Your task to perform on an android device: Open calendar and show me the third week of next month Image 0: 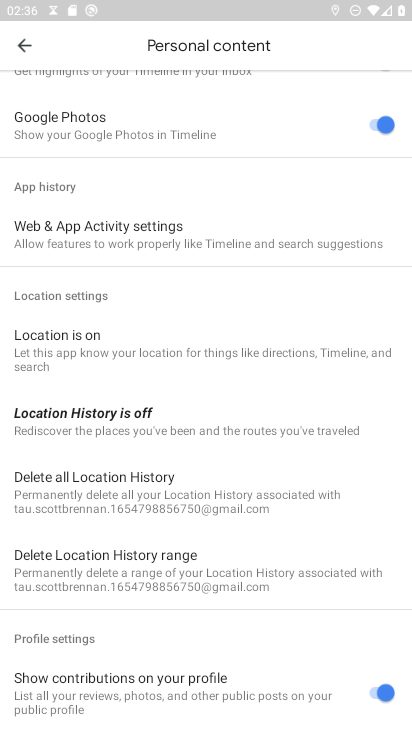
Step 0: press home button
Your task to perform on an android device: Open calendar and show me the third week of next month Image 1: 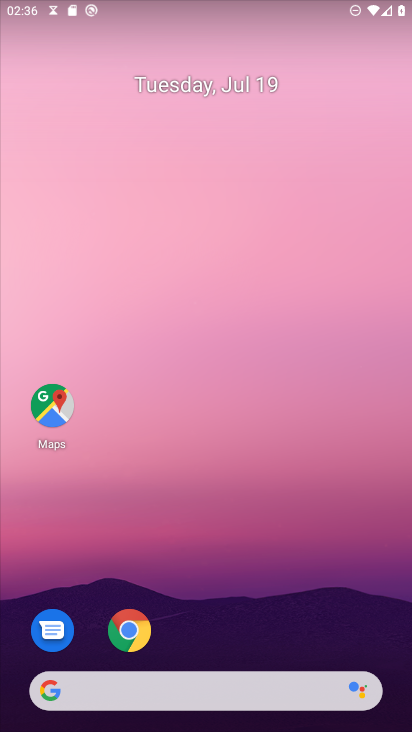
Step 1: drag from (165, 669) to (314, 104)
Your task to perform on an android device: Open calendar and show me the third week of next month Image 2: 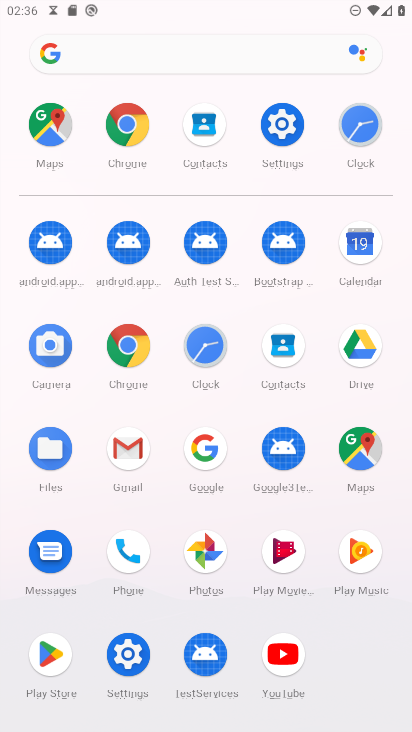
Step 2: click (359, 249)
Your task to perform on an android device: Open calendar and show me the third week of next month Image 3: 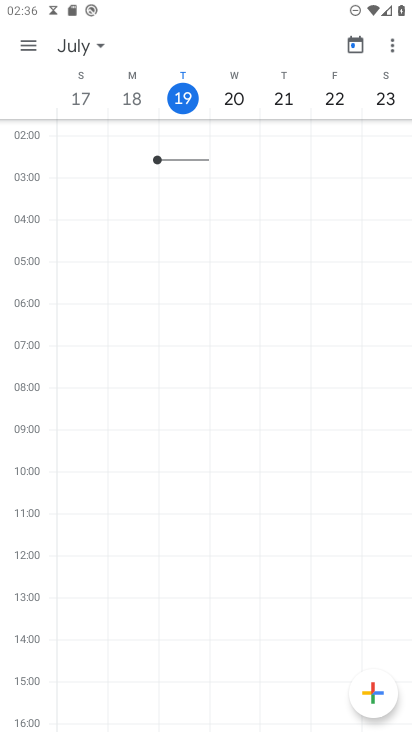
Step 3: click (87, 45)
Your task to perform on an android device: Open calendar and show me the third week of next month Image 4: 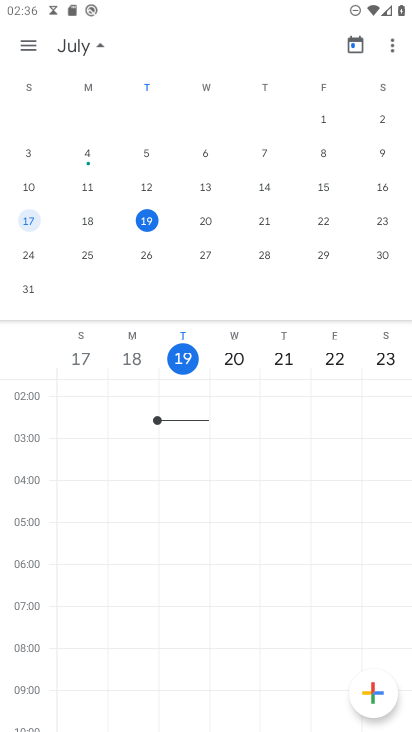
Step 4: drag from (366, 217) to (33, 265)
Your task to perform on an android device: Open calendar and show me the third week of next month Image 5: 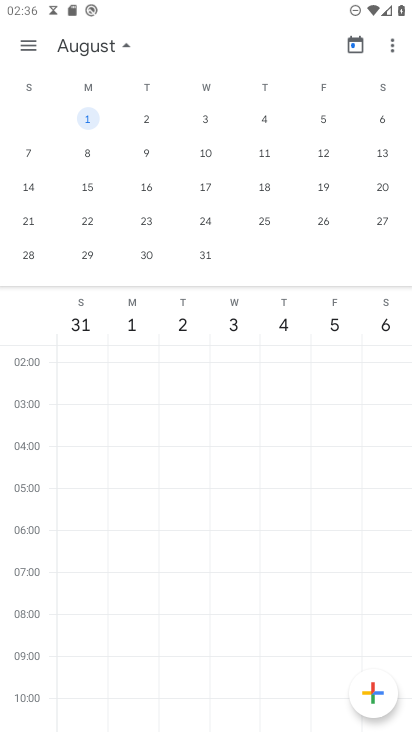
Step 5: click (33, 180)
Your task to perform on an android device: Open calendar and show me the third week of next month Image 6: 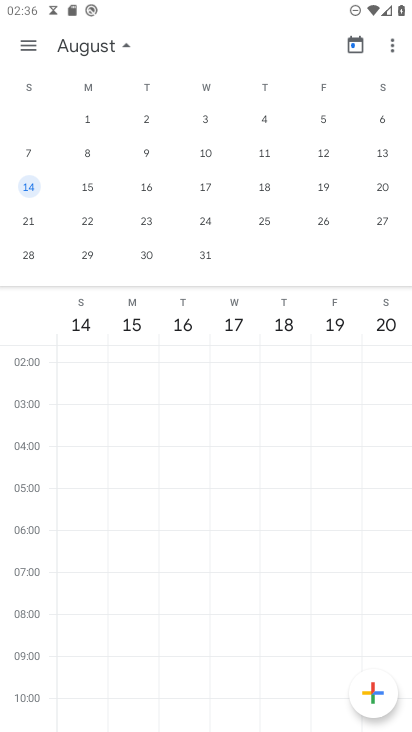
Step 6: task complete